Your task to perform on an android device: Do I have any events today? Image 0: 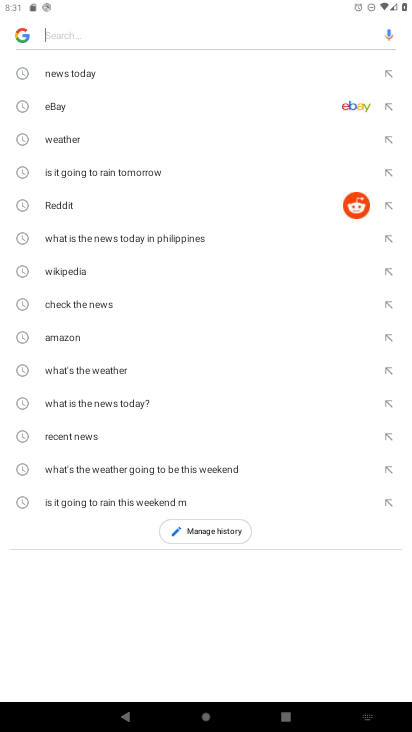
Step 0: press home button
Your task to perform on an android device: Do I have any events today? Image 1: 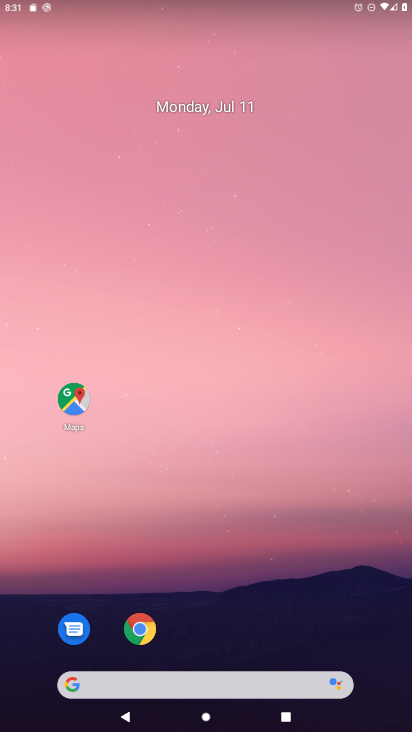
Step 1: drag from (244, 627) to (305, 108)
Your task to perform on an android device: Do I have any events today? Image 2: 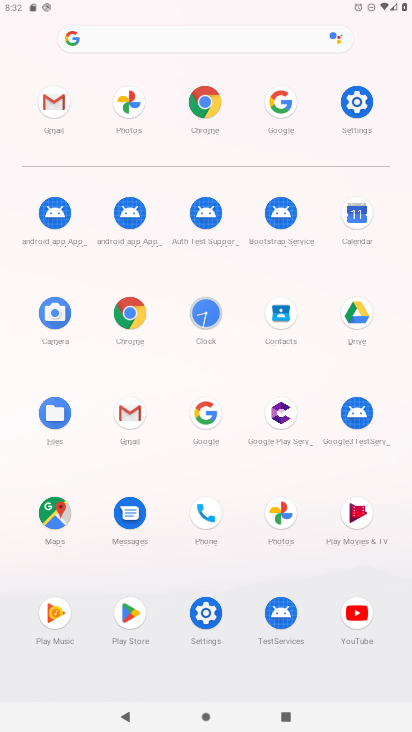
Step 2: click (356, 218)
Your task to perform on an android device: Do I have any events today? Image 3: 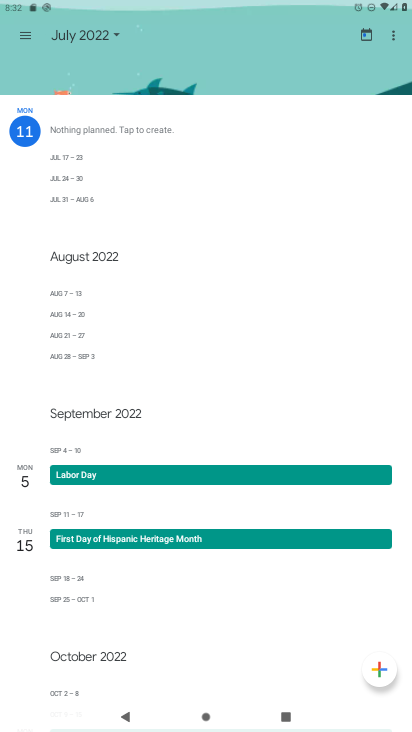
Step 3: click (93, 38)
Your task to perform on an android device: Do I have any events today? Image 4: 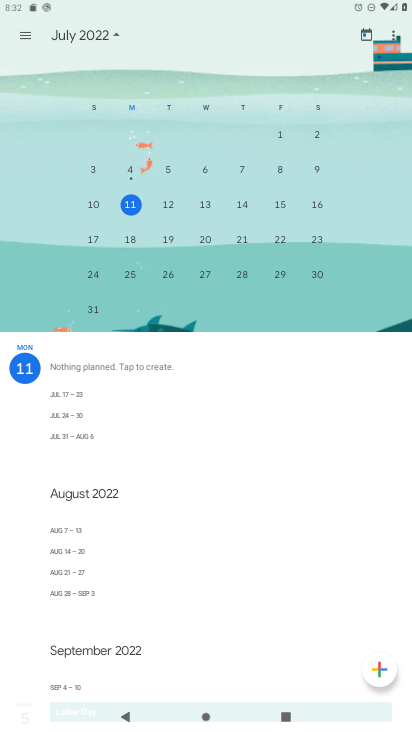
Step 4: task complete